Your task to perform on an android device: Go to notification settings Image 0: 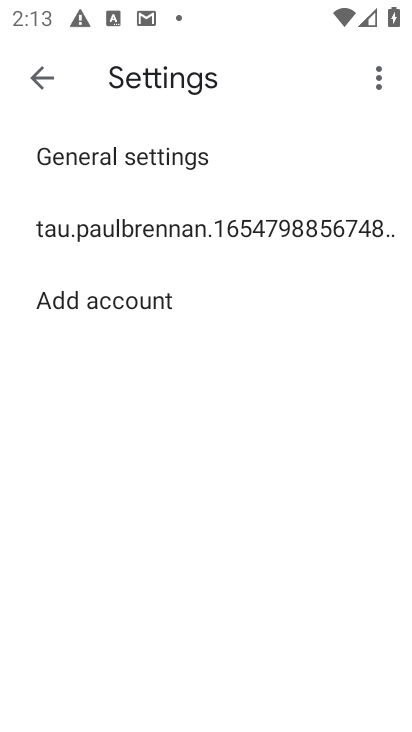
Step 0: press home button
Your task to perform on an android device: Go to notification settings Image 1: 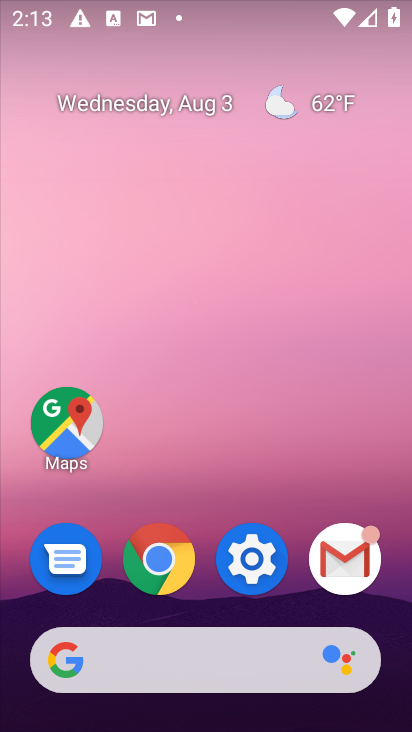
Step 1: click (258, 524)
Your task to perform on an android device: Go to notification settings Image 2: 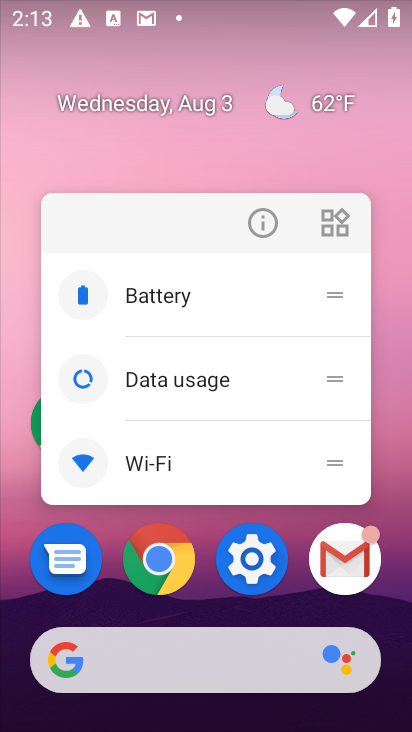
Step 2: click (244, 550)
Your task to perform on an android device: Go to notification settings Image 3: 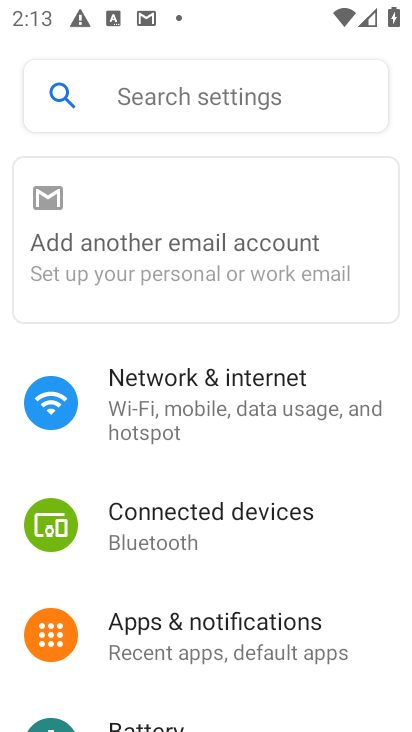
Step 3: click (184, 105)
Your task to perform on an android device: Go to notification settings Image 4: 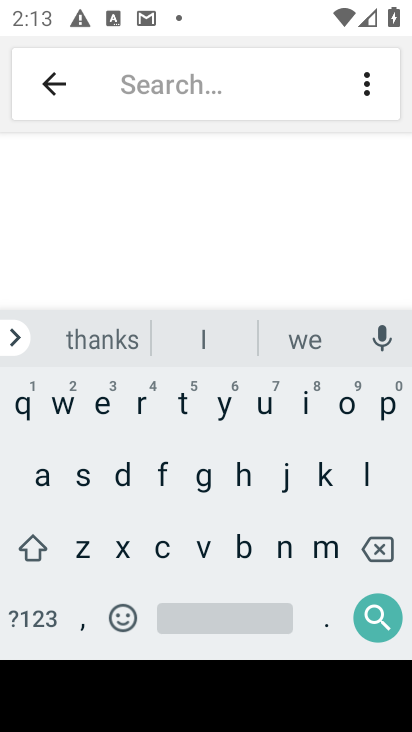
Step 4: click (275, 558)
Your task to perform on an android device: Go to notification settings Image 5: 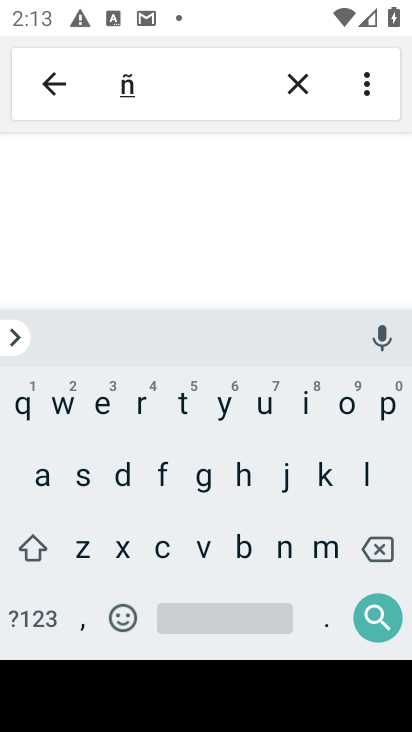
Step 5: click (346, 407)
Your task to perform on an android device: Go to notification settings Image 6: 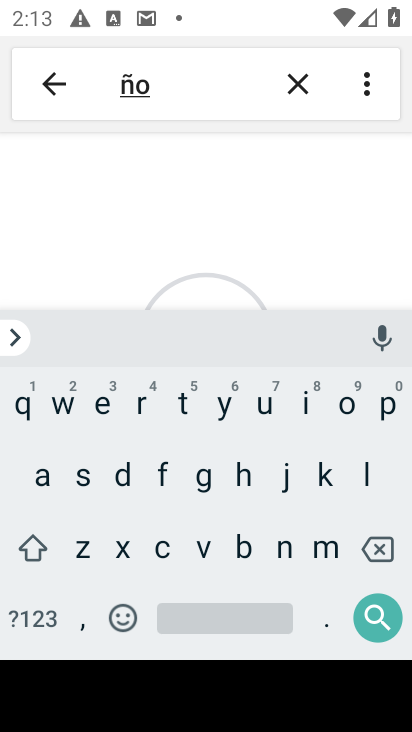
Step 6: click (301, 81)
Your task to perform on an android device: Go to notification settings Image 7: 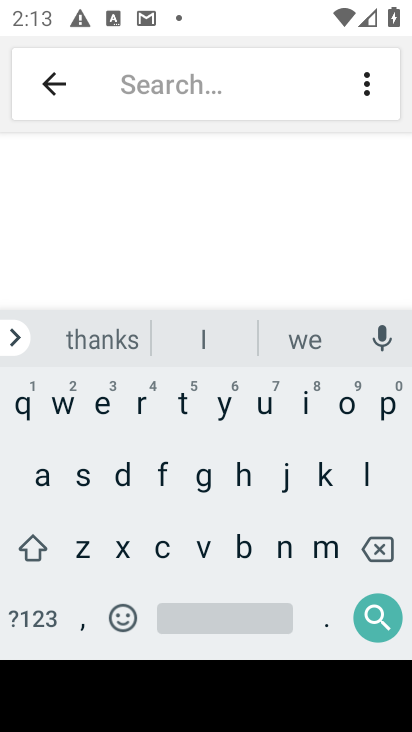
Step 7: click (282, 552)
Your task to perform on an android device: Go to notification settings Image 8: 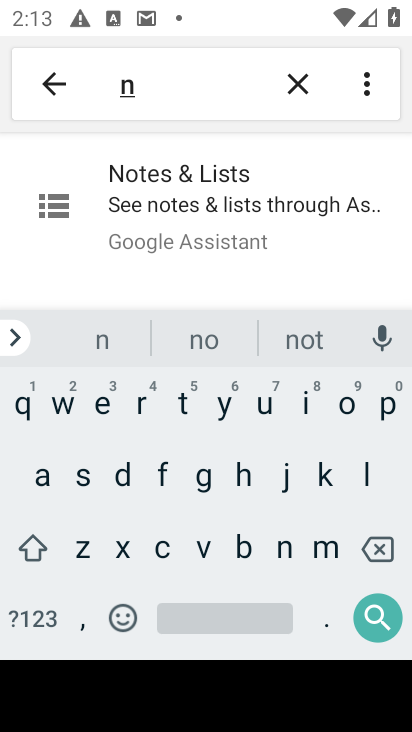
Step 8: click (344, 408)
Your task to perform on an android device: Go to notification settings Image 9: 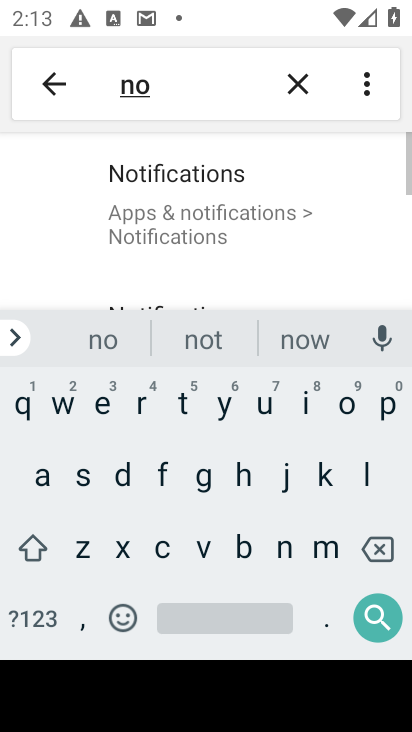
Step 9: click (192, 183)
Your task to perform on an android device: Go to notification settings Image 10: 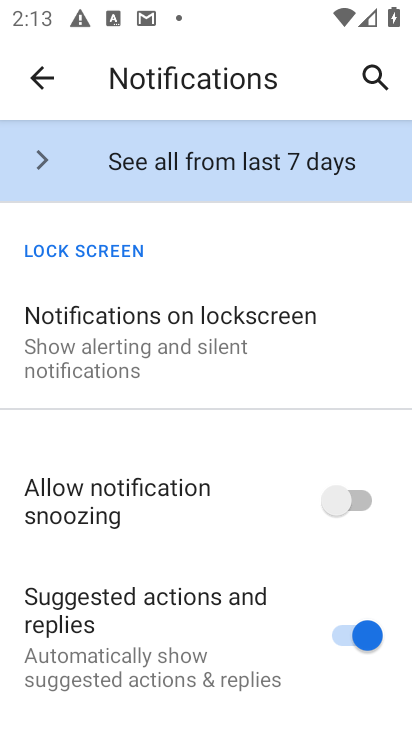
Step 10: click (168, 312)
Your task to perform on an android device: Go to notification settings Image 11: 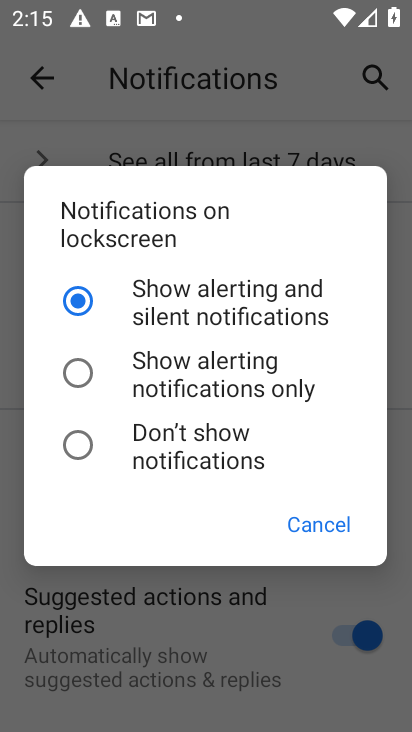
Step 11: task complete